Your task to perform on an android device: turn off location history Image 0: 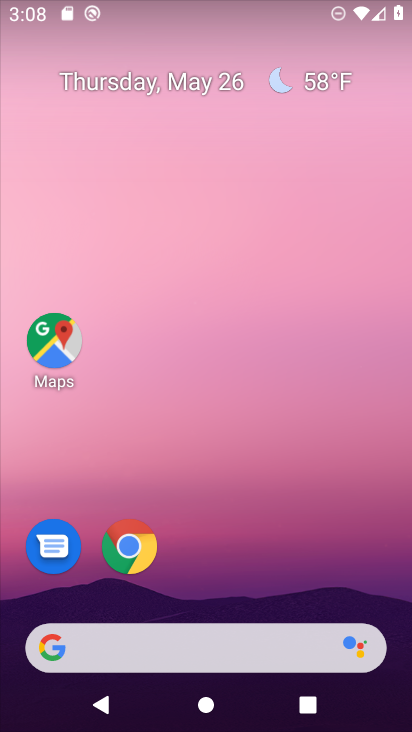
Step 0: press home button
Your task to perform on an android device: turn off location history Image 1: 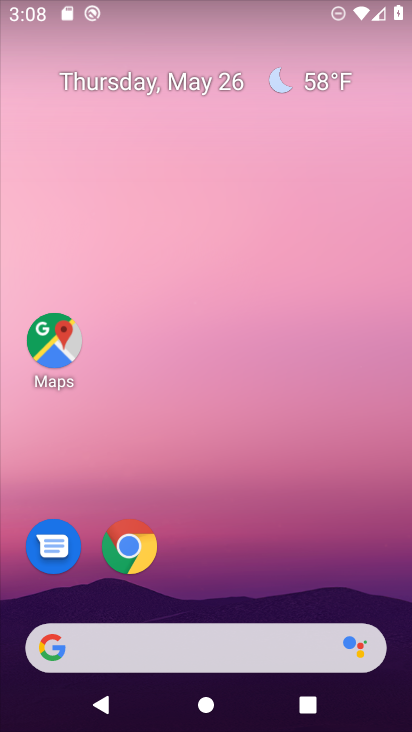
Step 1: drag from (208, 598) to (270, 63)
Your task to perform on an android device: turn off location history Image 2: 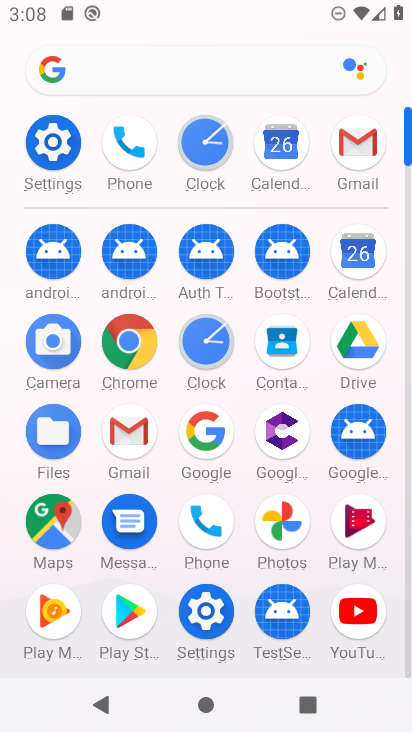
Step 2: click (48, 137)
Your task to perform on an android device: turn off location history Image 3: 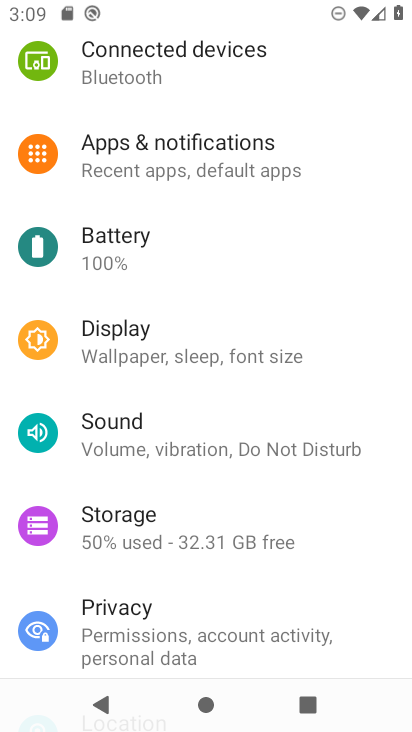
Step 3: drag from (184, 593) to (215, 214)
Your task to perform on an android device: turn off location history Image 4: 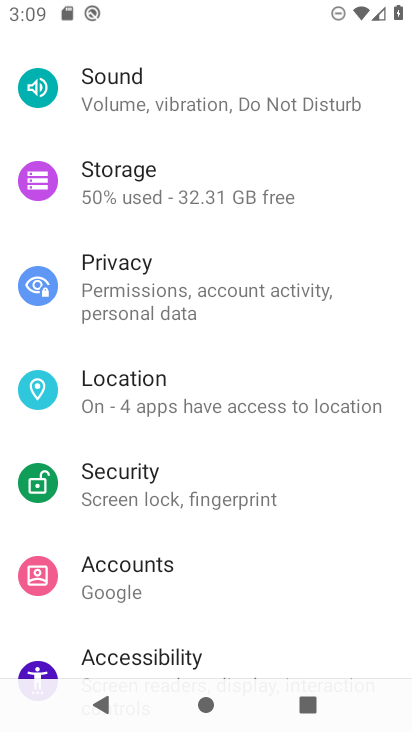
Step 4: click (188, 369)
Your task to perform on an android device: turn off location history Image 5: 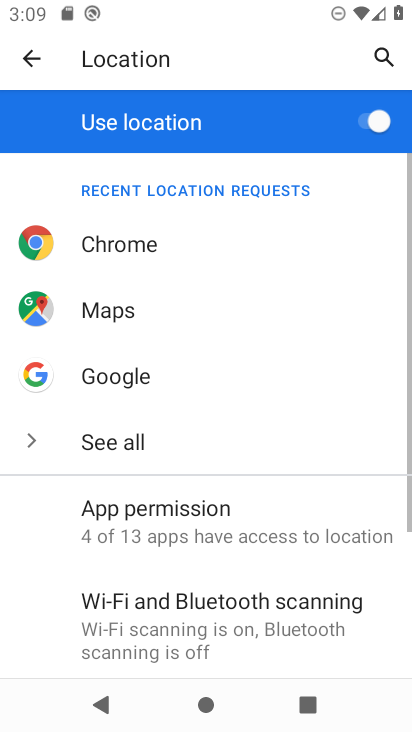
Step 5: drag from (186, 637) to (233, 187)
Your task to perform on an android device: turn off location history Image 6: 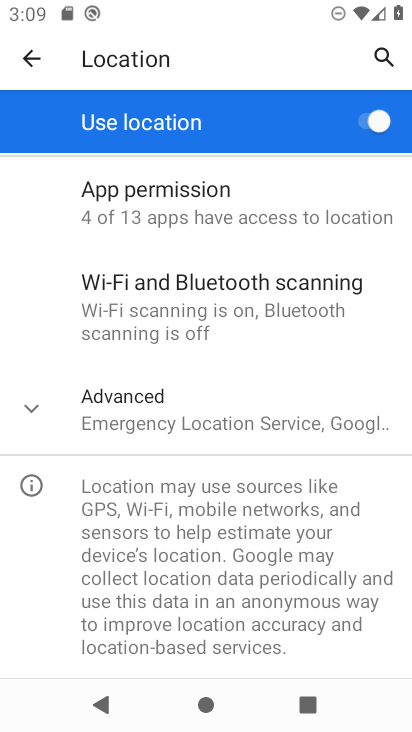
Step 6: click (24, 401)
Your task to perform on an android device: turn off location history Image 7: 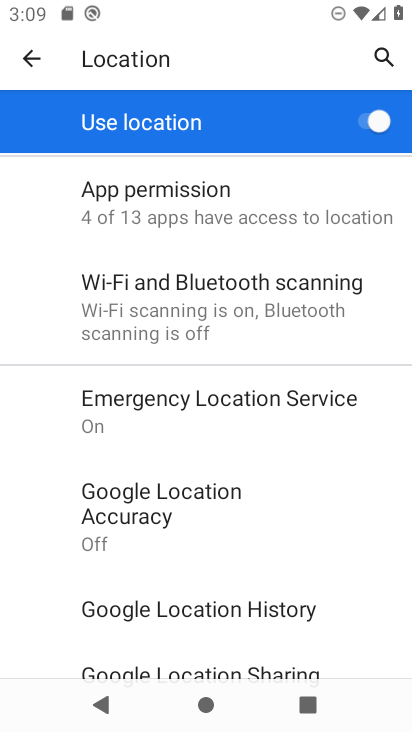
Step 7: click (333, 606)
Your task to perform on an android device: turn off location history Image 8: 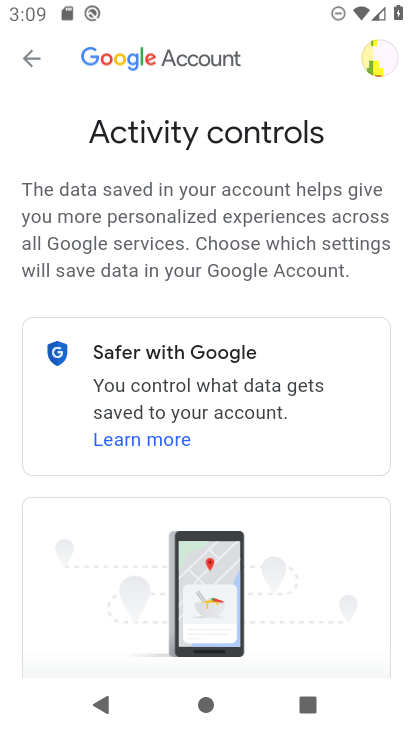
Step 8: drag from (126, 608) to (174, 65)
Your task to perform on an android device: turn off location history Image 9: 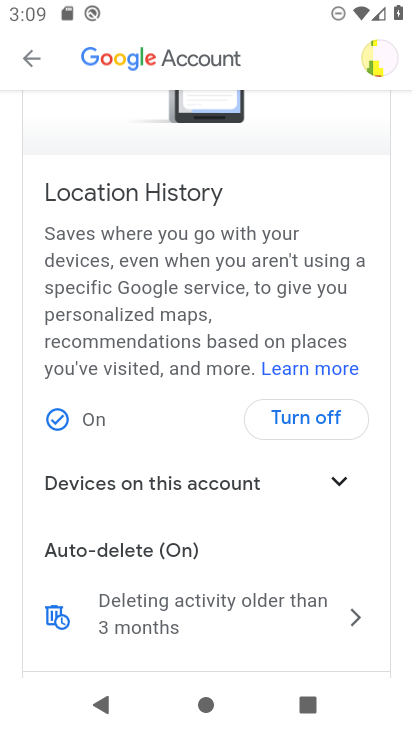
Step 9: click (322, 410)
Your task to perform on an android device: turn off location history Image 10: 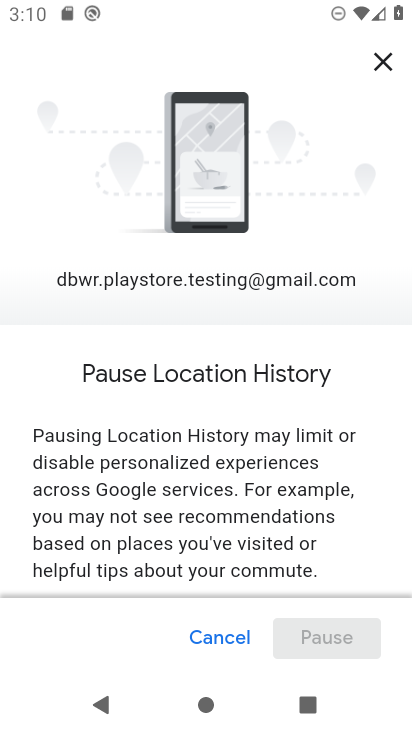
Step 10: drag from (262, 556) to (277, 61)
Your task to perform on an android device: turn off location history Image 11: 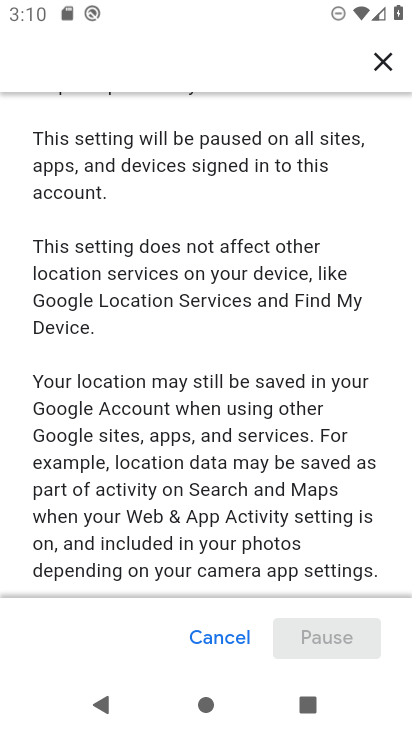
Step 11: drag from (237, 533) to (265, 144)
Your task to perform on an android device: turn off location history Image 12: 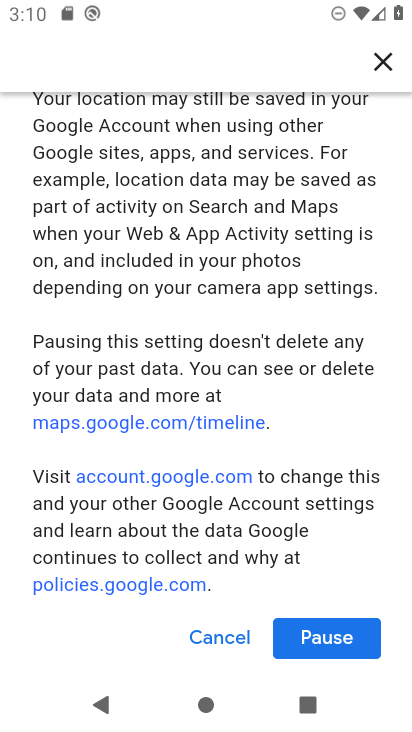
Step 12: click (329, 637)
Your task to perform on an android device: turn off location history Image 13: 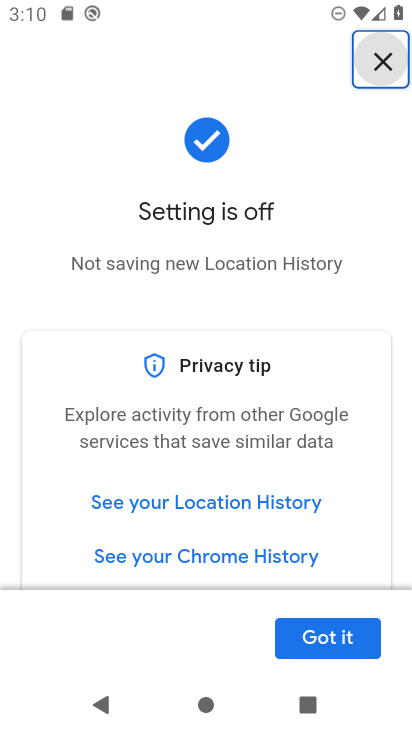
Step 13: click (327, 636)
Your task to perform on an android device: turn off location history Image 14: 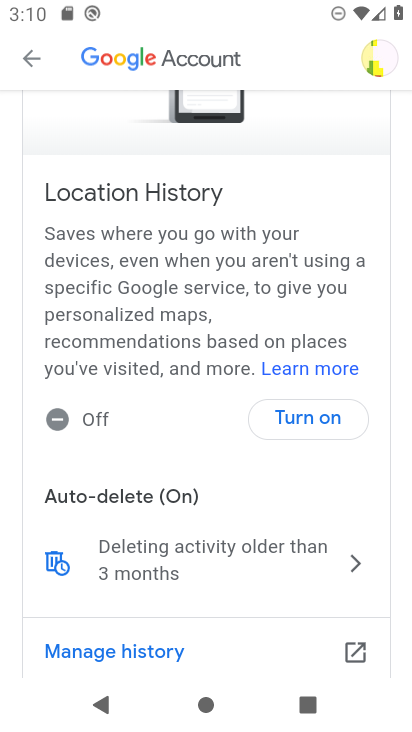
Step 14: task complete